Your task to perform on an android device: What's the weather today? Image 0: 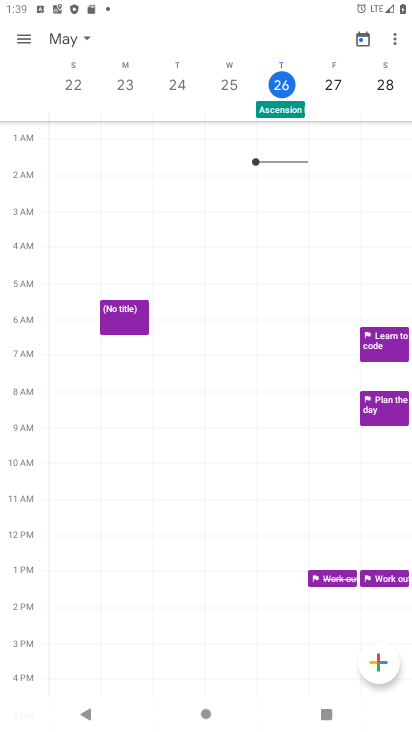
Step 0: press home button
Your task to perform on an android device: What's the weather today? Image 1: 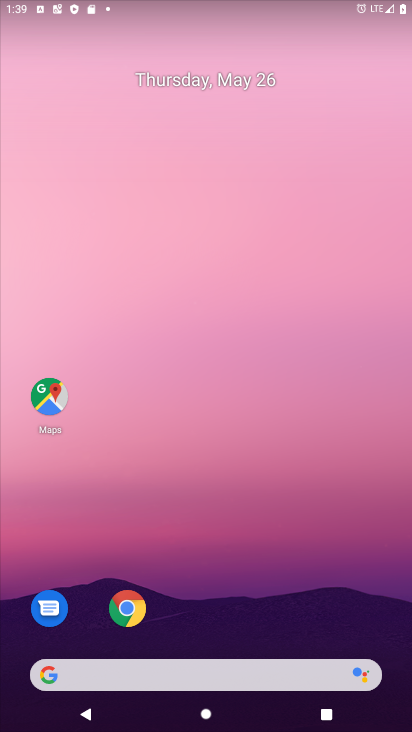
Step 1: drag from (13, 254) to (397, 286)
Your task to perform on an android device: What's the weather today? Image 2: 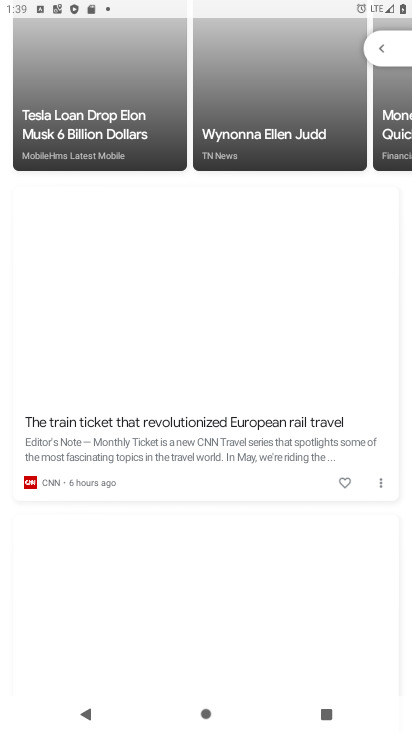
Step 2: drag from (224, 73) to (235, 582)
Your task to perform on an android device: What's the weather today? Image 3: 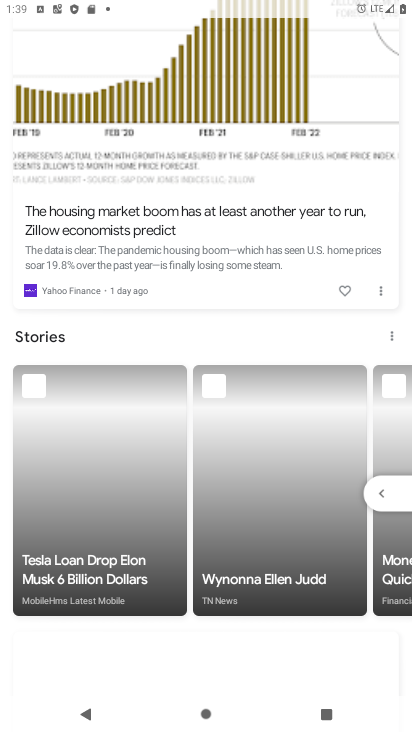
Step 3: drag from (264, 160) to (261, 536)
Your task to perform on an android device: What's the weather today? Image 4: 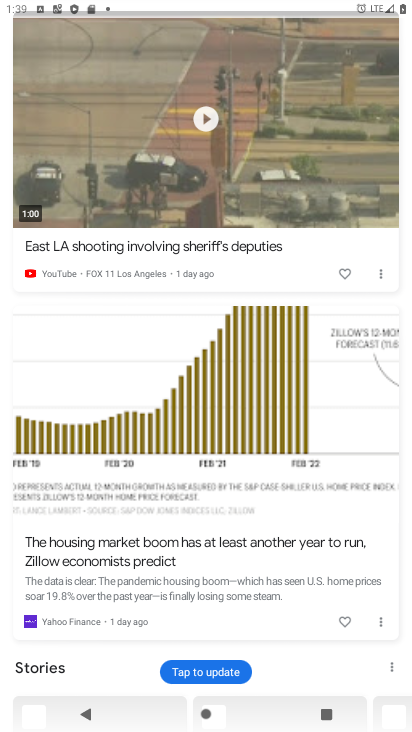
Step 4: drag from (226, 196) to (228, 545)
Your task to perform on an android device: What's the weather today? Image 5: 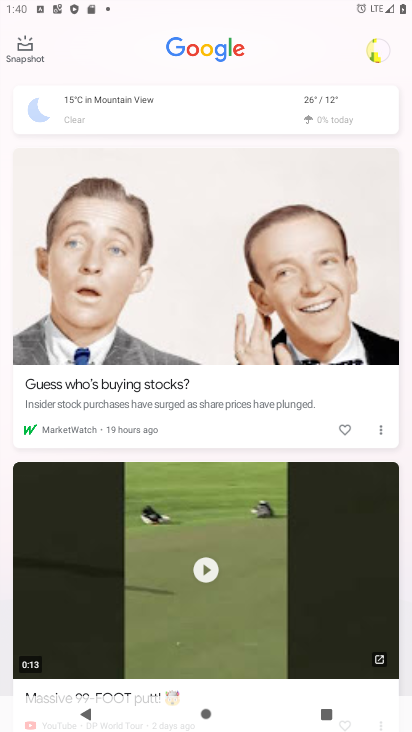
Step 5: click (312, 118)
Your task to perform on an android device: What's the weather today? Image 6: 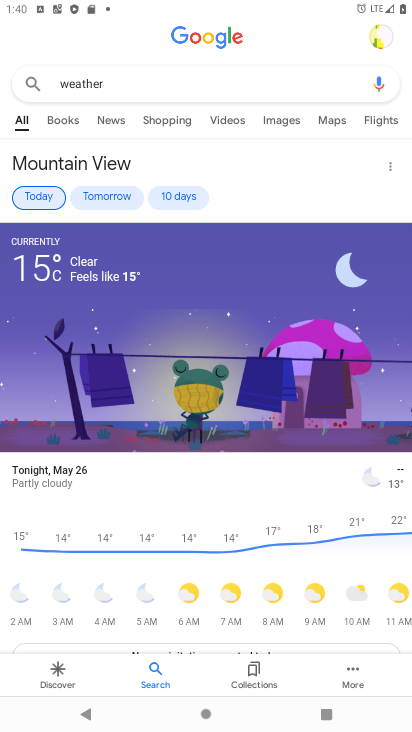
Step 6: task complete